Your task to perform on an android device: turn on the 12-hour format for clock Image 0: 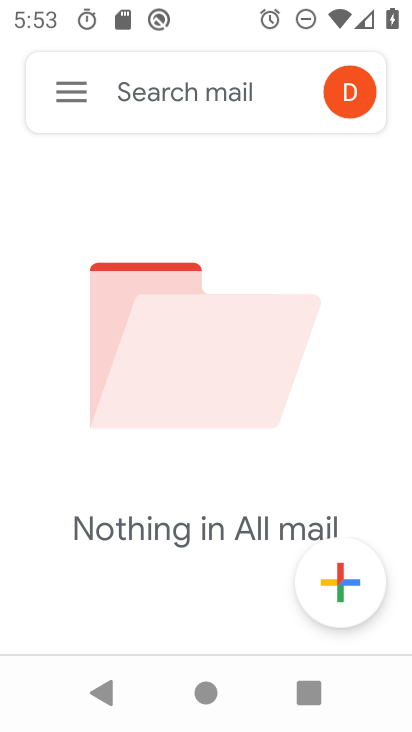
Step 0: press home button
Your task to perform on an android device: turn on the 12-hour format for clock Image 1: 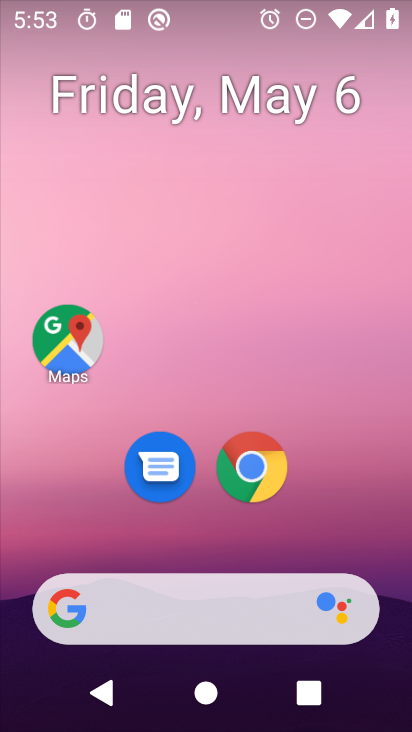
Step 1: drag from (322, 499) to (302, 148)
Your task to perform on an android device: turn on the 12-hour format for clock Image 2: 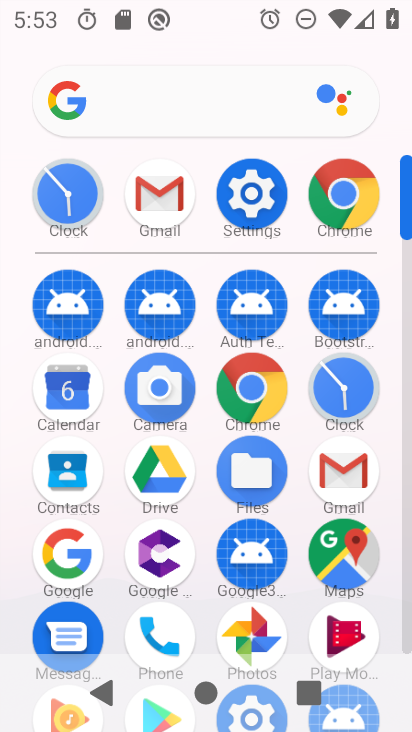
Step 2: click (63, 227)
Your task to perform on an android device: turn on the 12-hour format for clock Image 3: 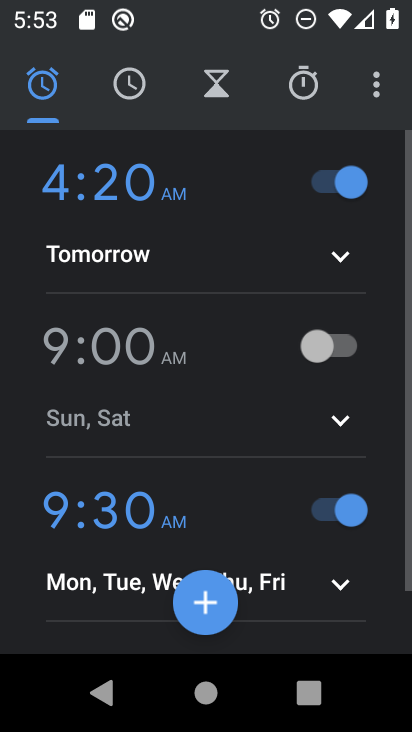
Step 3: click (373, 96)
Your task to perform on an android device: turn on the 12-hour format for clock Image 4: 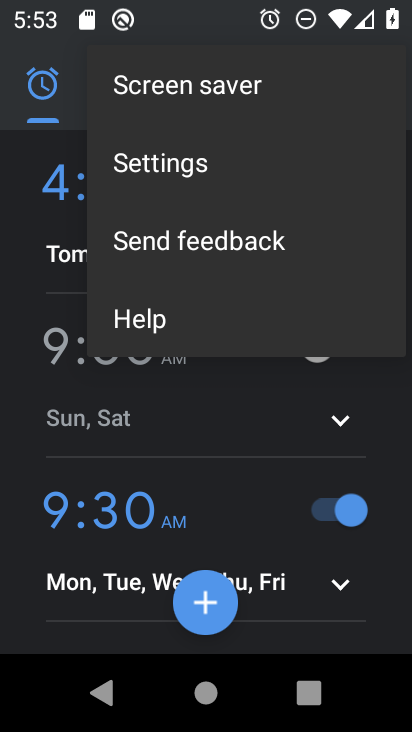
Step 4: click (164, 175)
Your task to perform on an android device: turn on the 12-hour format for clock Image 5: 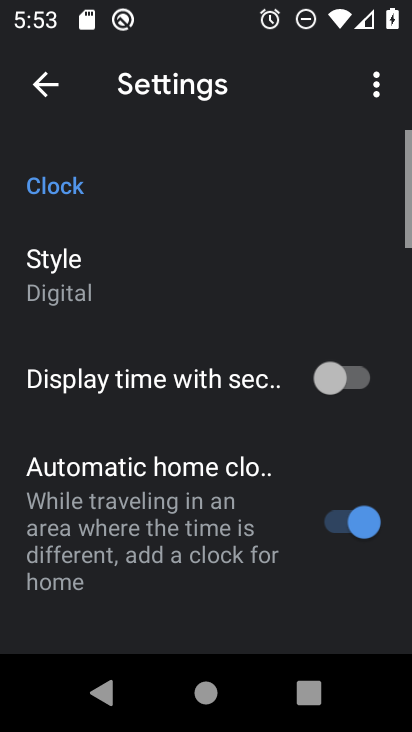
Step 5: drag from (217, 578) to (272, 155)
Your task to perform on an android device: turn on the 12-hour format for clock Image 6: 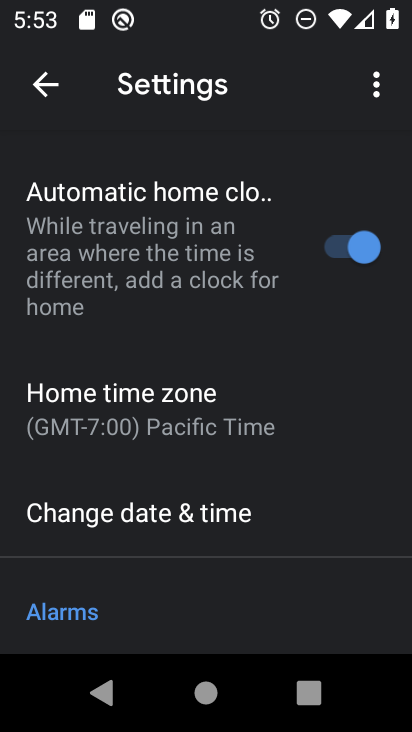
Step 6: click (169, 533)
Your task to perform on an android device: turn on the 12-hour format for clock Image 7: 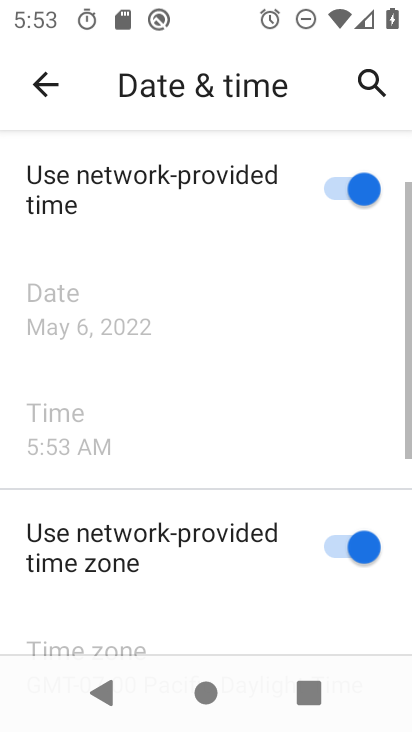
Step 7: task complete